Your task to perform on an android device: Search for the new Steph Curry shoes on Nike.com Image 0: 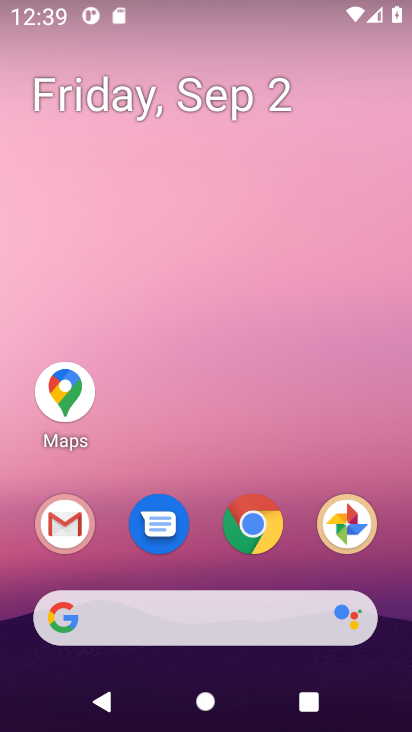
Step 0: press home button
Your task to perform on an android device: Search for the new Steph Curry shoes on Nike.com Image 1: 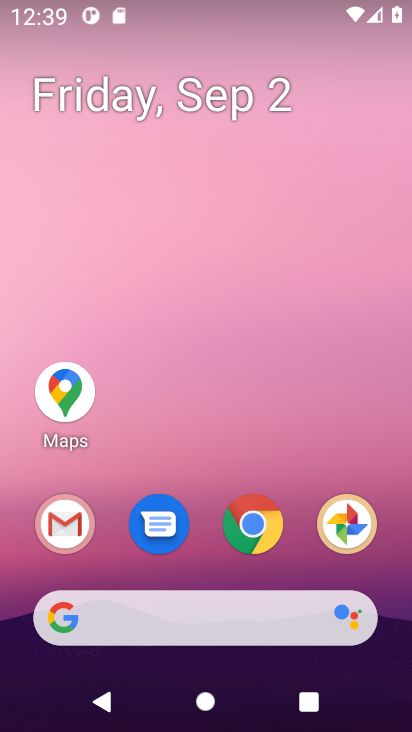
Step 1: click (261, 627)
Your task to perform on an android device: Search for the new Steph Curry shoes on Nike.com Image 2: 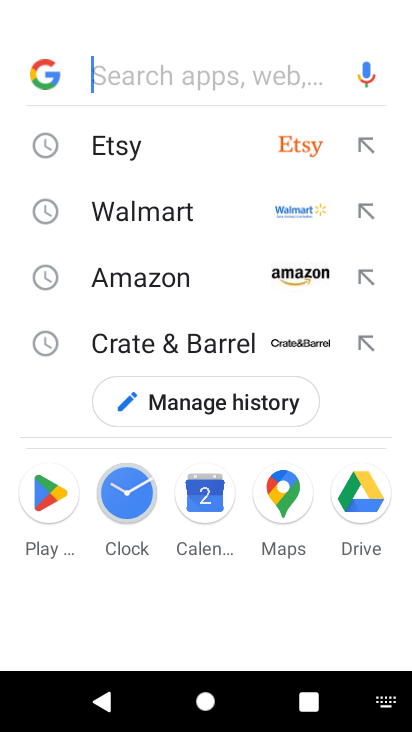
Step 2: press enter
Your task to perform on an android device: Search for the new Steph Curry shoes on Nike.com Image 3: 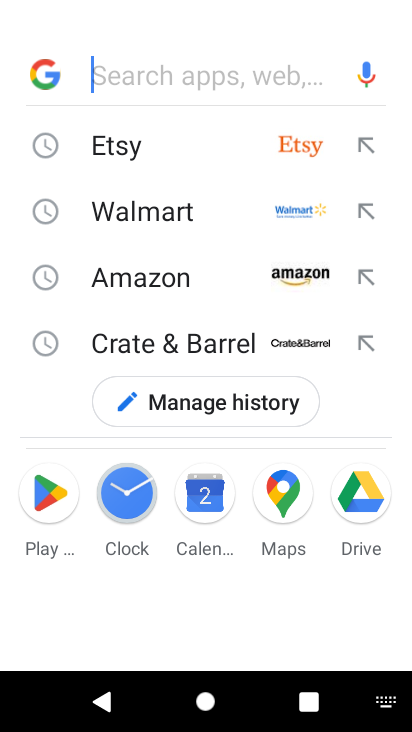
Step 3: type "nike .com"
Your task to perform on an android device: Search for the new Steph Curry shoes on Nike.com Image 4: 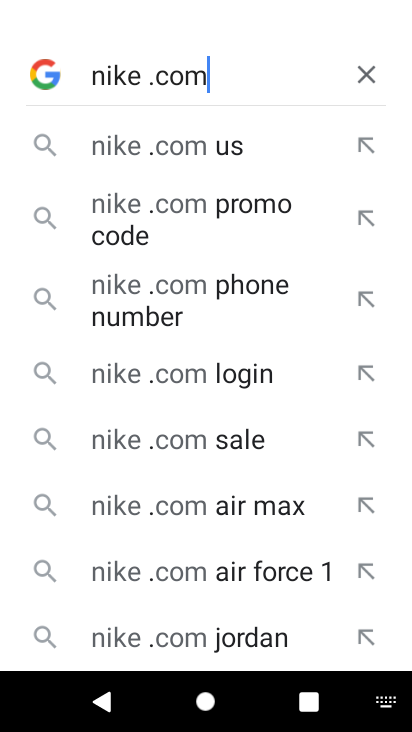
Step 4: click (227, 440)
Your task to perform on an android device: Search for the new Steph Curry shoes on Nike.com Image 5: 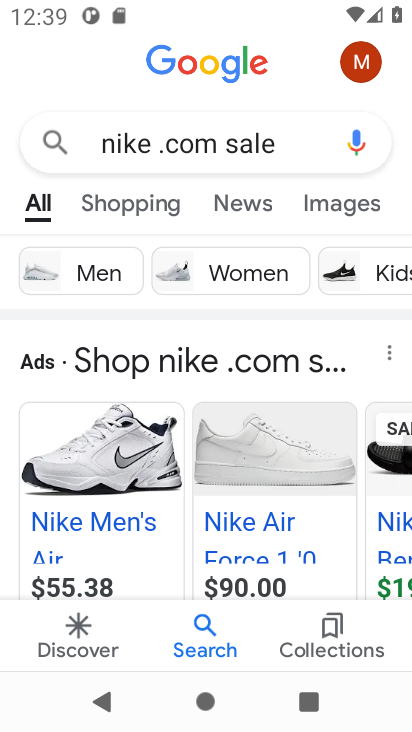
Step 5: drag from (365, 566) to (395, 175)
Your task to perform on an android device: Search for the new Steph Curry shoes on Nike.com Image 6: 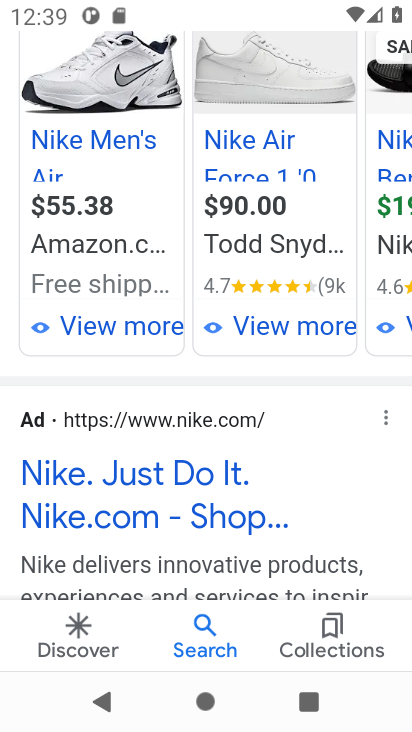
Step 6: drag from (329, 351) to (329, 224)
Your task to perform on an android device: Search for the new Steph Curry shoes on Nike.com Image 7: 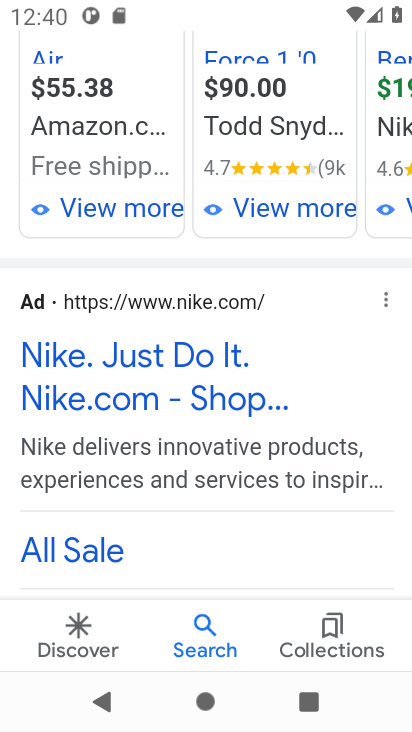
Step 7: click (201, 385)
Your task to perform on an android device: Search for the new Steph Curry shoes on Nike.com Image 8: 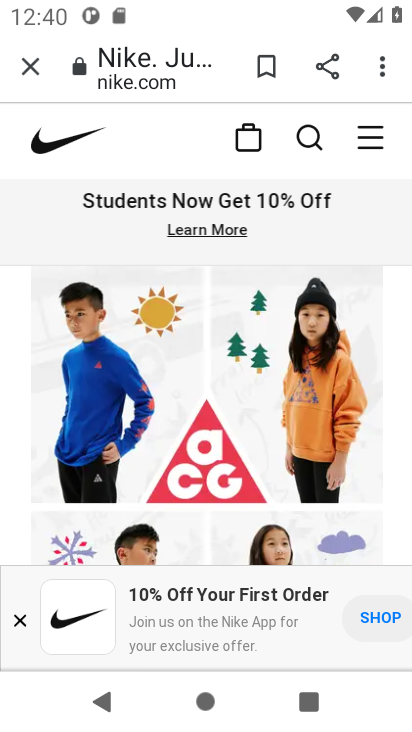
Step 8: click (303, 129)
Your task to perform on an android device: Search for the new Steph Curry shoes on Nike.com Image 9: 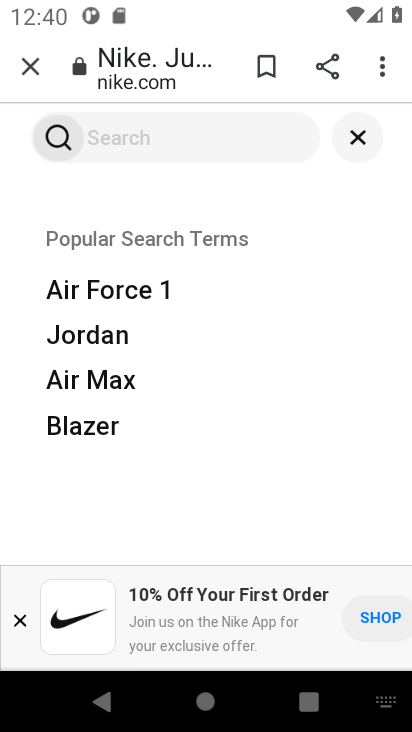
Step 9: press enter
Your task to perform on an android device: Search for the new Steph Curry shoes on Nike.com Image 10: 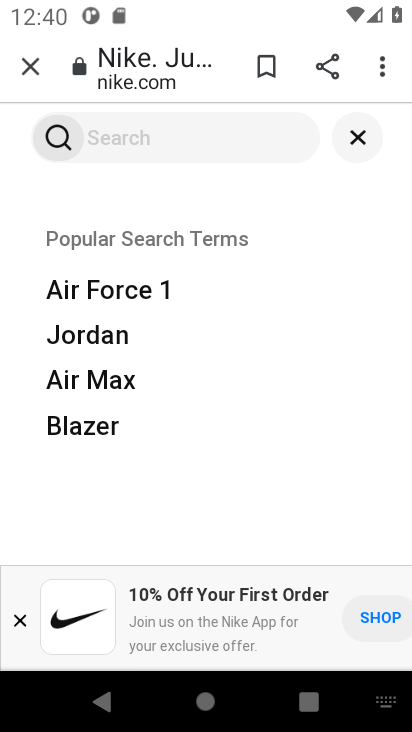
Step 10: type "Steph Curry shoes "
Your task to perform on an android device: Search for the new Steph Curry shoes on Nike.com Image 11: 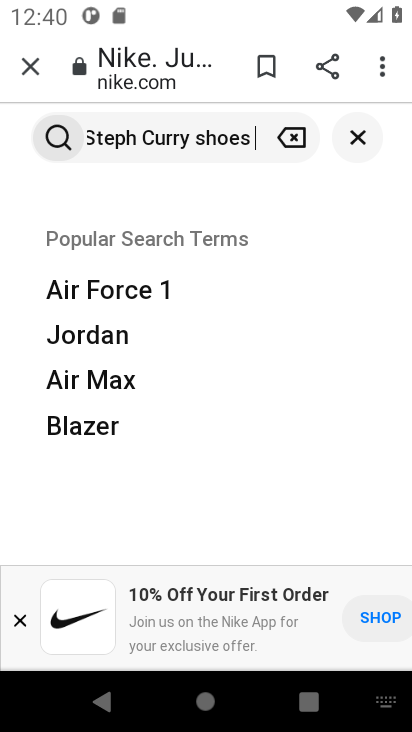
Step 11: click (58, 130)
Your task to perform on an android device: Search for the new Steph Curry shoes on Nike.com Image 12: 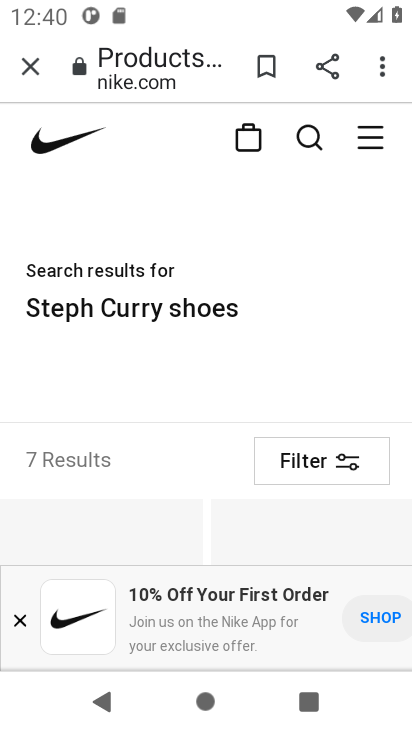
Step 12: task complete